Your task to perform on an android device: Search for seafood restaurants on Google Maps Image 0: 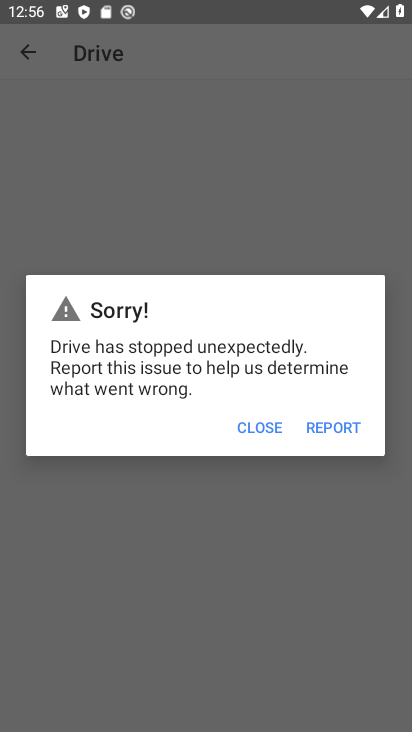
Step 0: task complete